Your task to perform on an android device: Check out the new ikea catalog. Image 0: 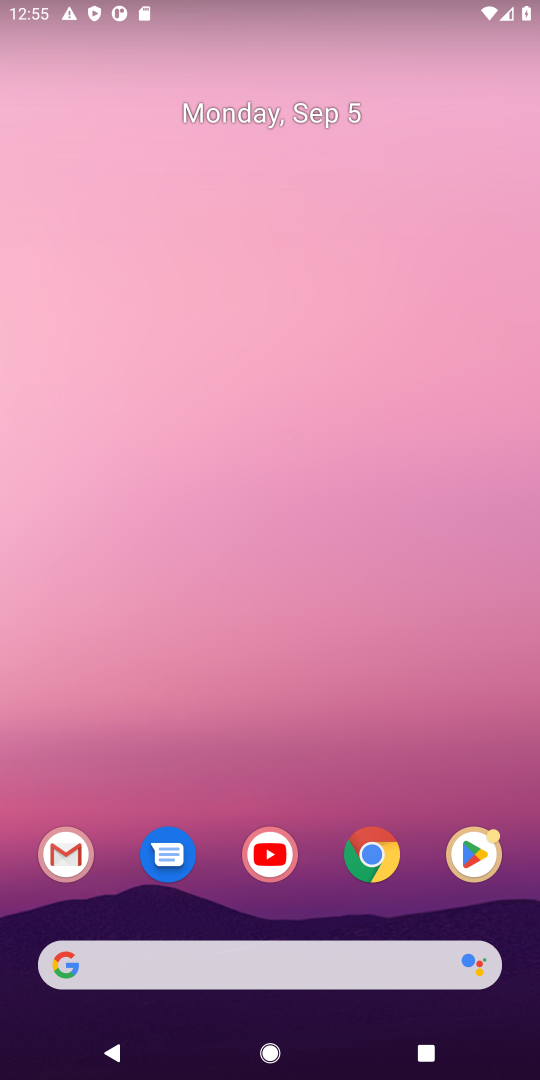
Step 0: press home button
Your task to perform on an android device: Check out the new ikea catalog. Image 1: 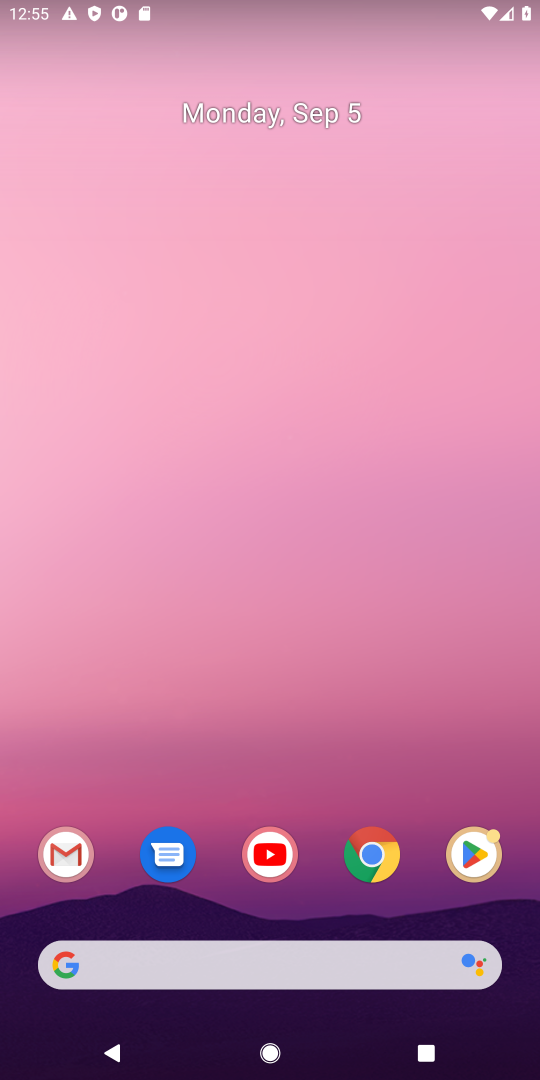
Step 1: click (347, 960)
Your task to perform on an android device: Check out the new ikea catalog. Image 2: 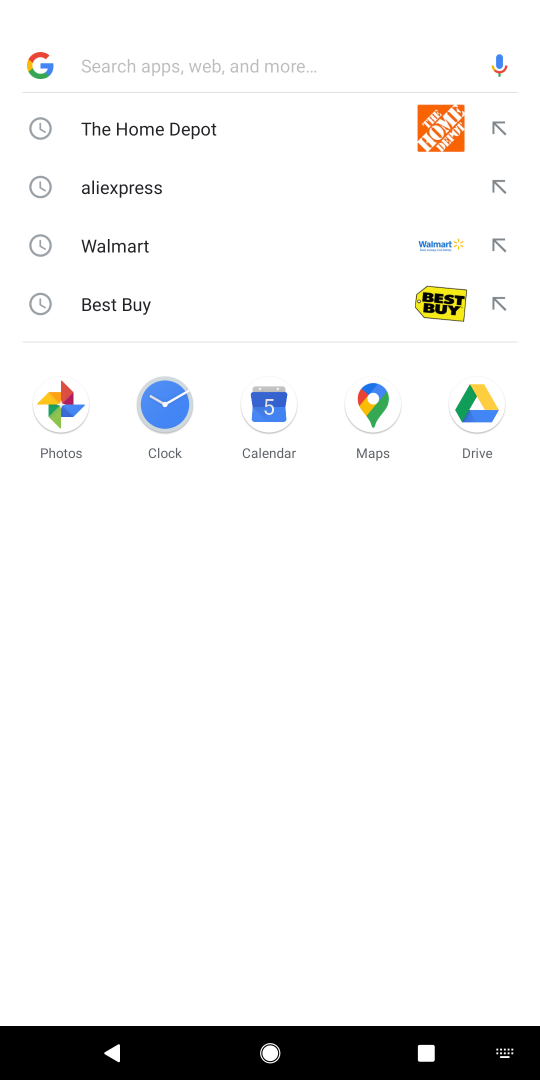
Step 2: type "ikea"
Your task to perform on an android device: Check out the new ikea catalog. Image 3: 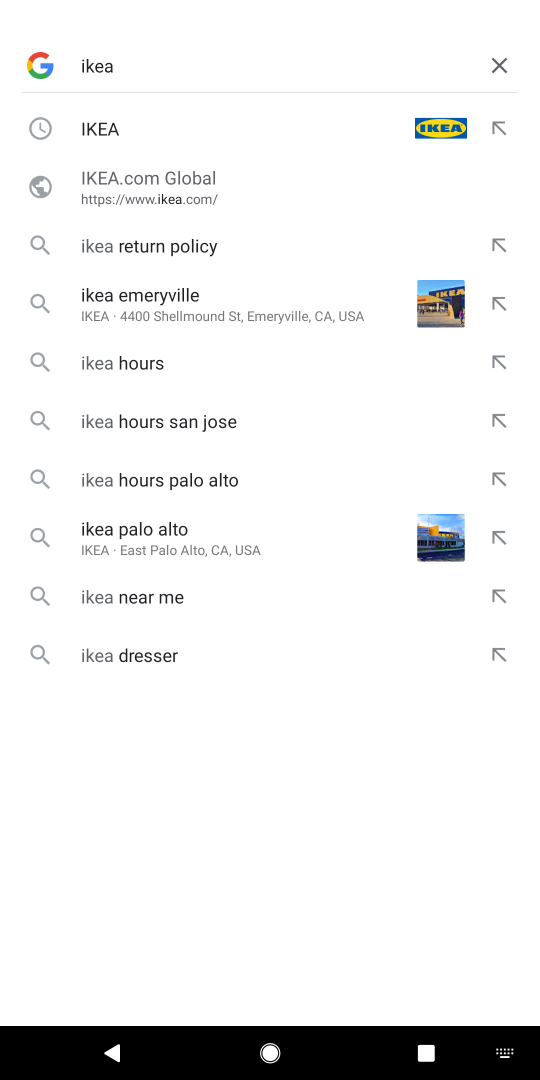
Step 3: press enter
Your task to perform on an android device: Check out the new ikea catalog. Image 4: 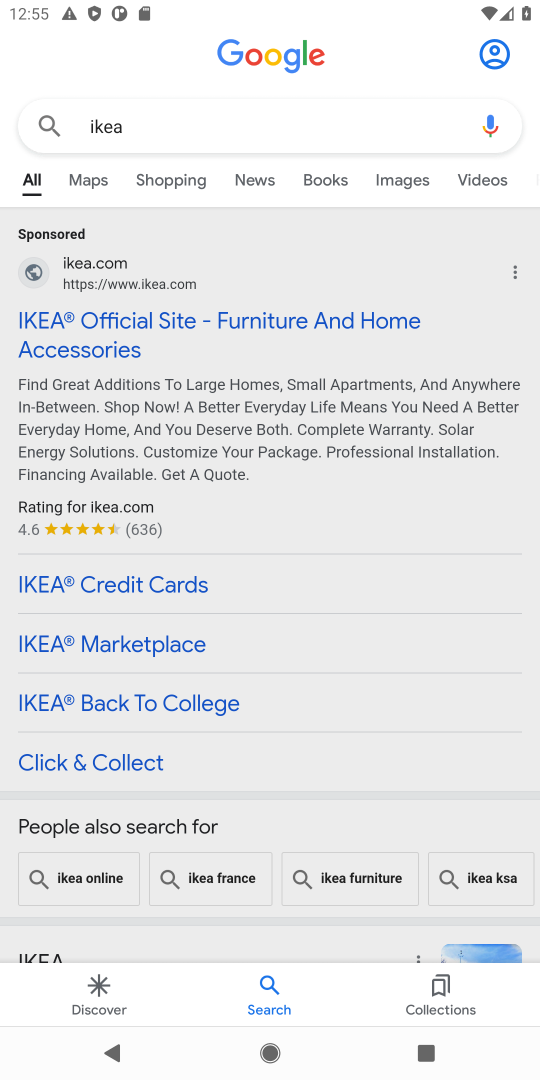
Step 4: click (133, 316)
Your task to perform on an android device: Check out the new ikea catalog. Image 5: 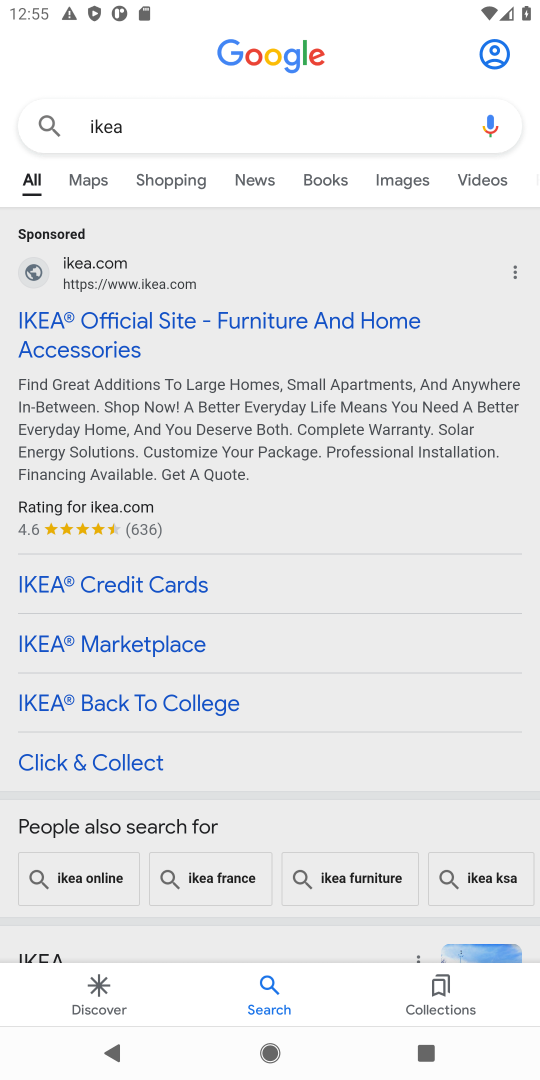
Step 5: click (119, 310)
Your task to perform on an android device: Check out the new ikea catalog. Image 6: 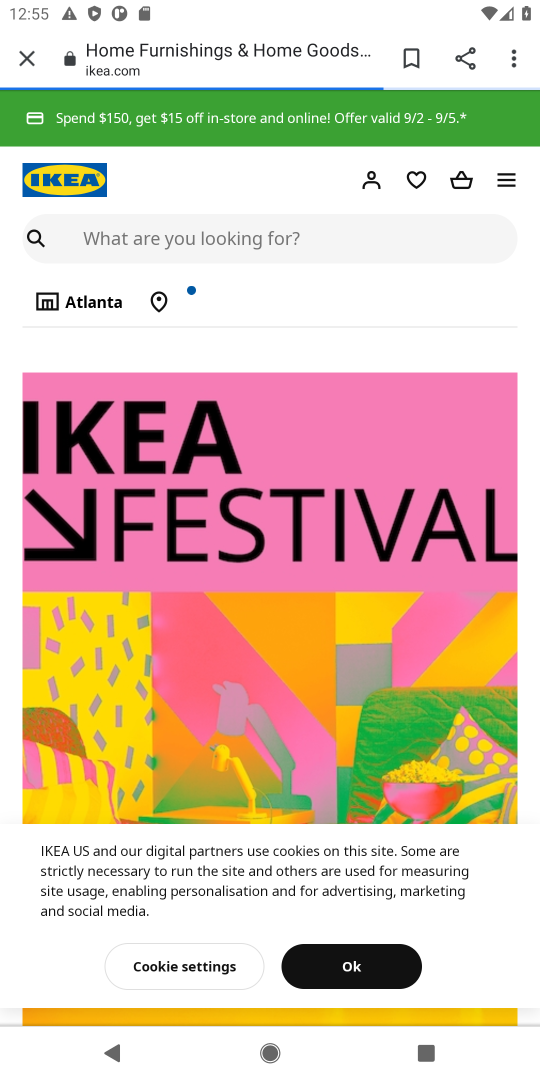
Step 6: click (191, 238)
Your task to perform on an android device: Check out the new ikea catalog. Image 7: 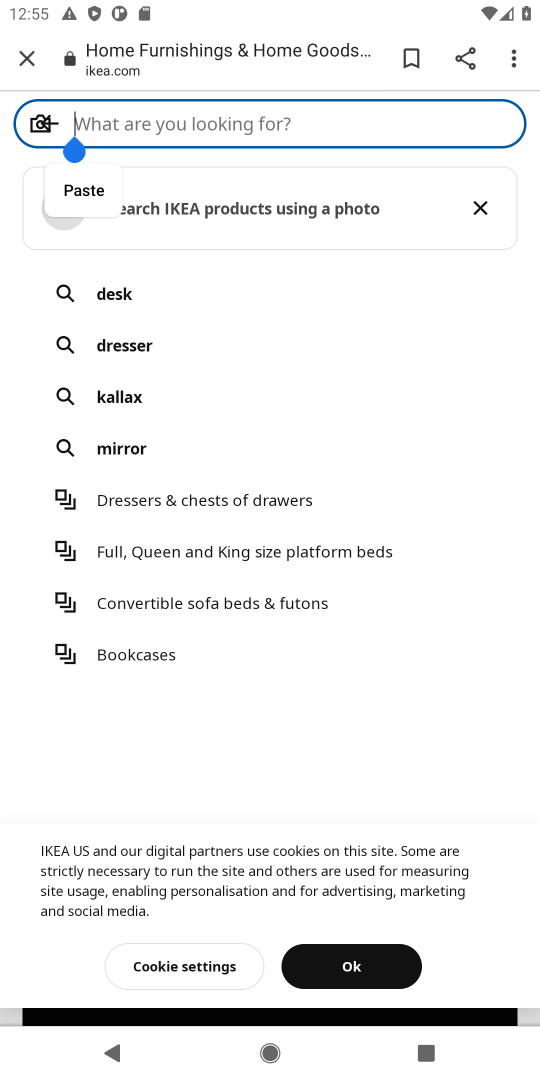
Step 7: press enter
Your task to perform on an android device: Check out the new ikea catalog. Image 8: 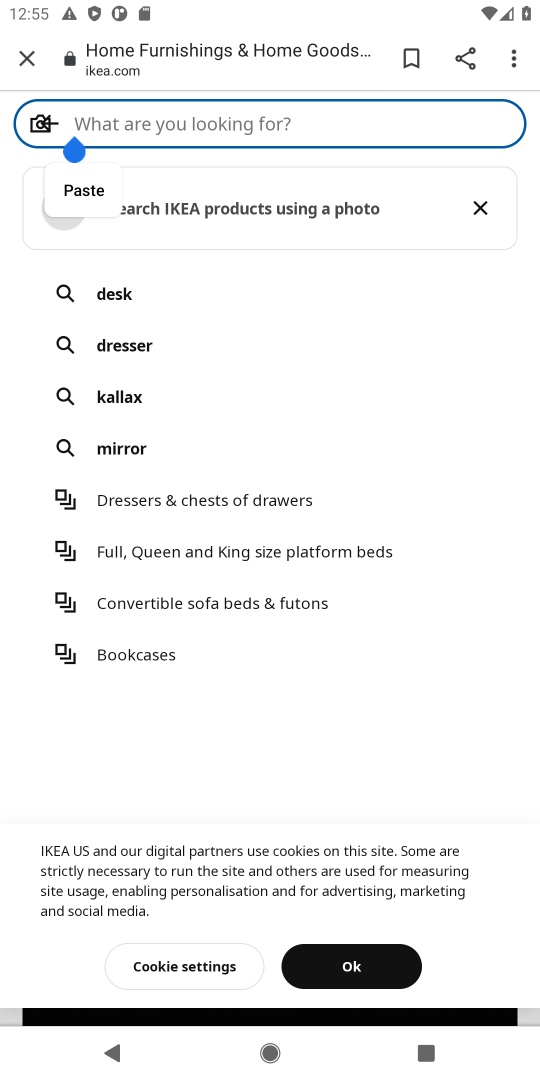
Step 8: type "catalog"
Your task to perform on an android device: Check out the new ikea catalog. Image 9: 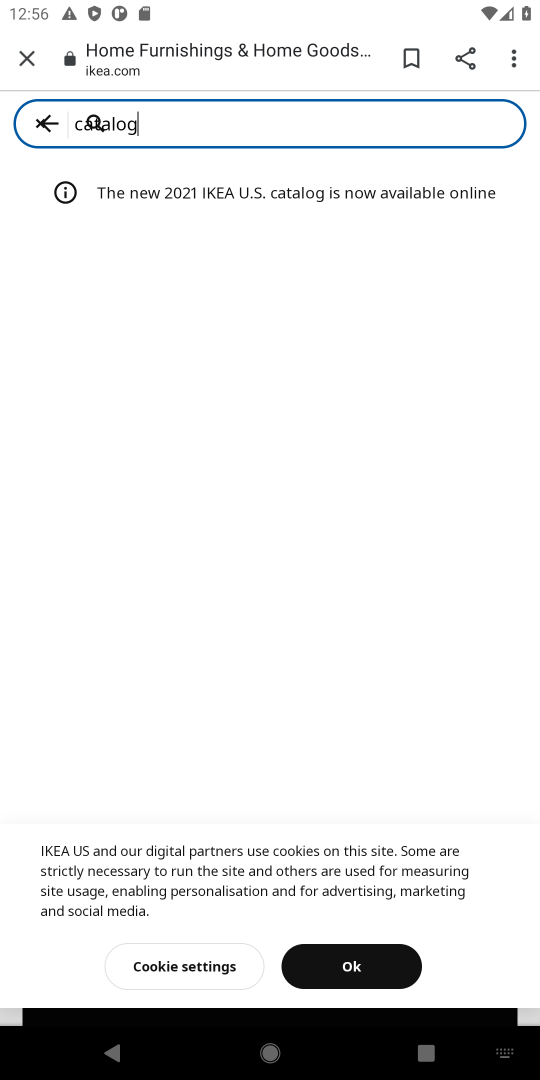
Step 9: click (358, 970)
Your task to perform on an android device: Check out the new ikea catalog. Image 10: 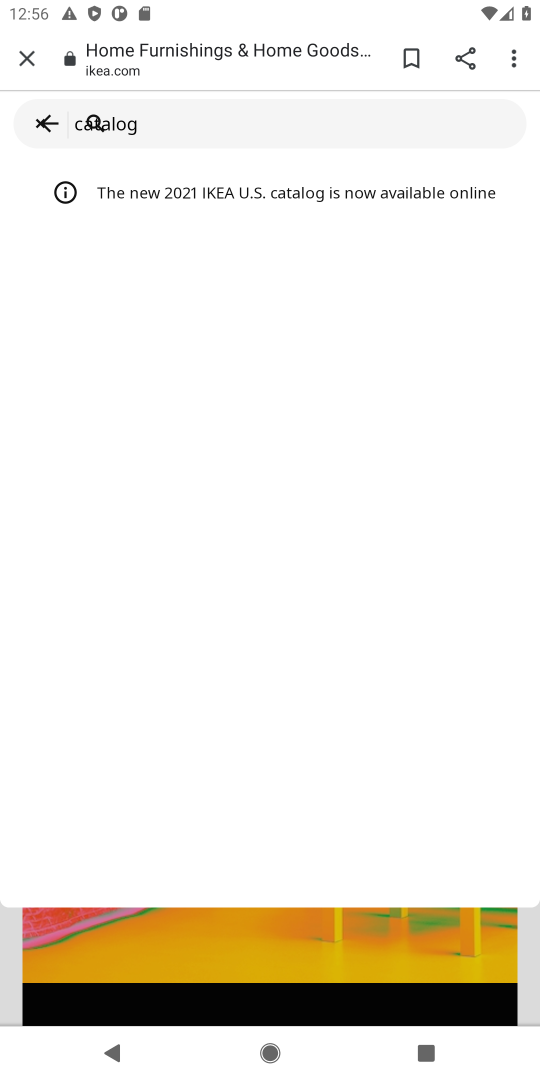
Step 10: click (40, 116)
Your task to perform on an android device: Check out the new ikea catalog. Image 11: 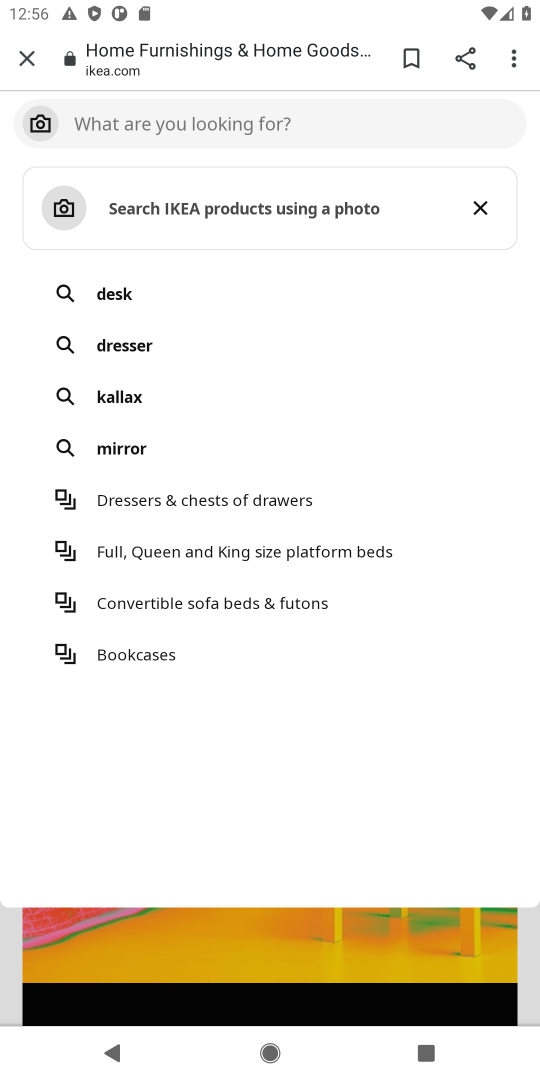
Step 11: click (310, 125)
Your task to perform on an android device: Check out the new ikea catalog. Image 12: 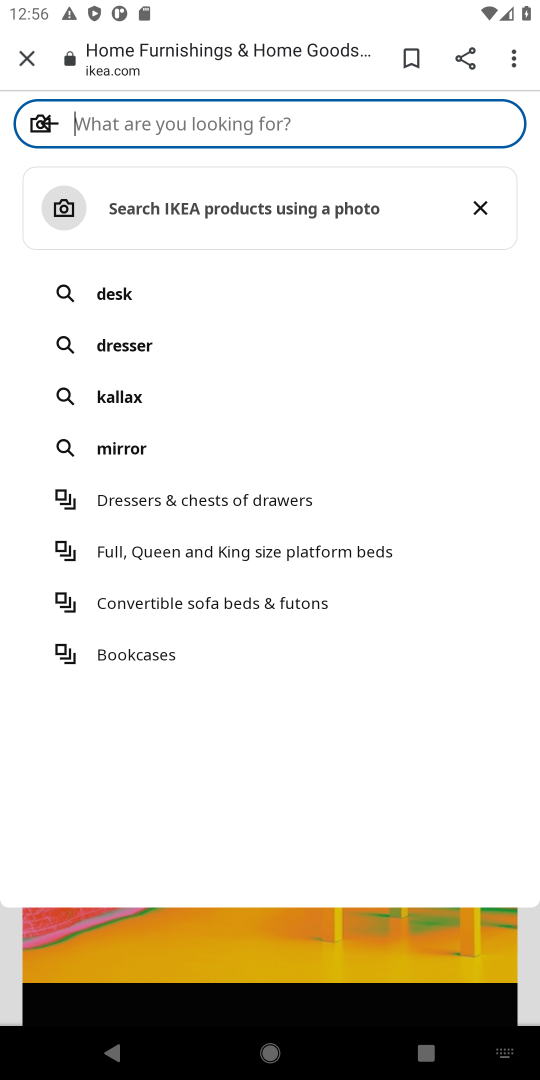
Step 12: press enter
Your task to perform on an android device: Check out the new ikea catalog. Image 13: 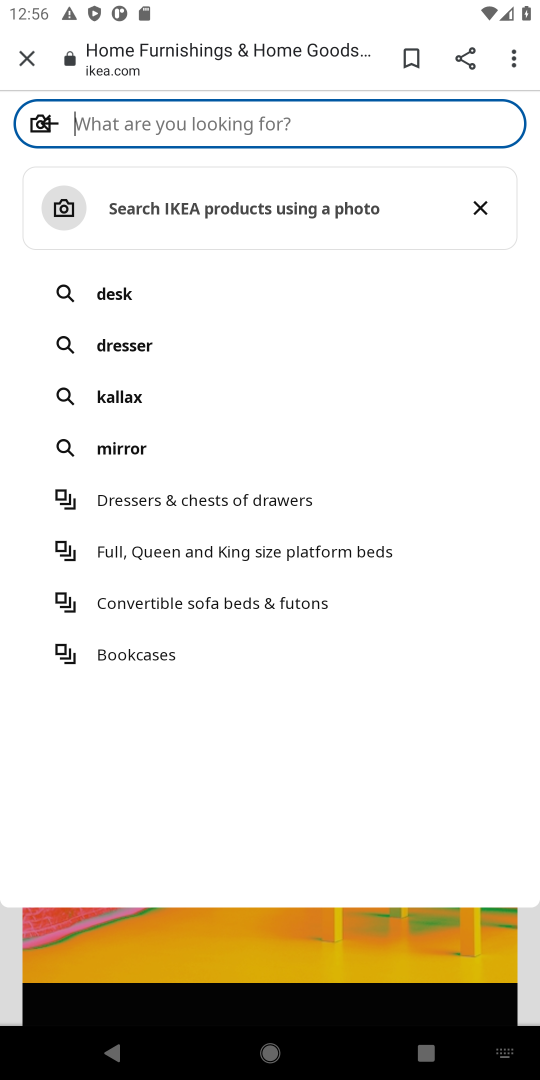
Step 13: type "catalog"
Your task to perform on an android device: Check out the new ikea catalog. Image 14: 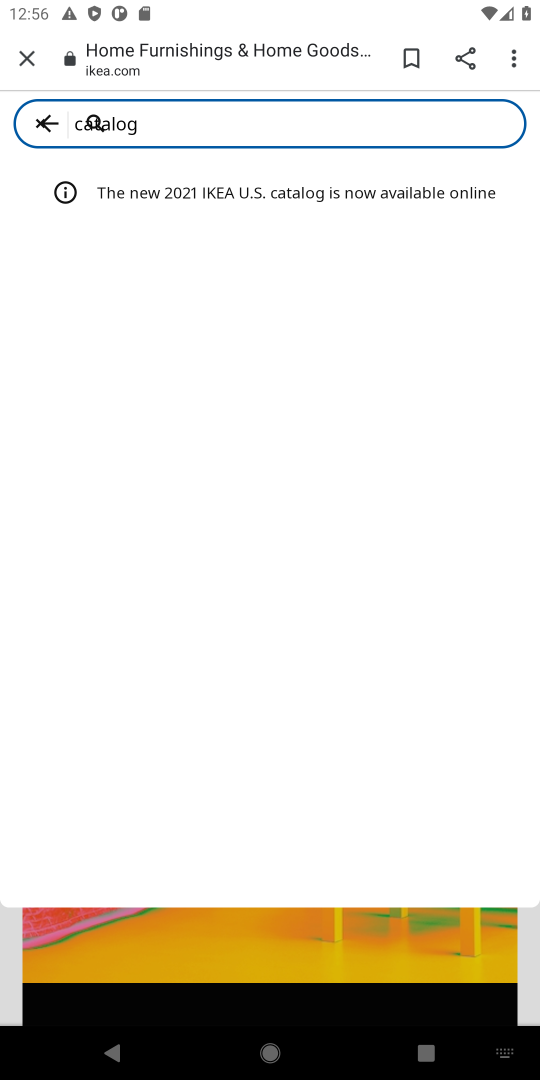
Step 14: task complete